Your task to perform on an android device: add a label to a message in the gmail app Image 0: 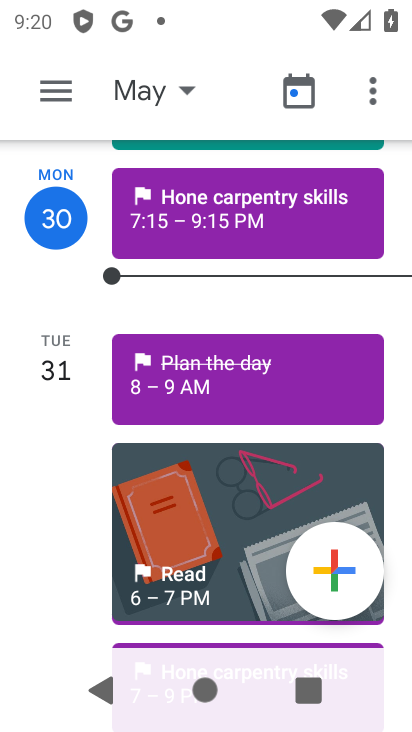
Step 0: press home button
Your task to perform on an android device: add a label to a message in the gmail app Image 1: 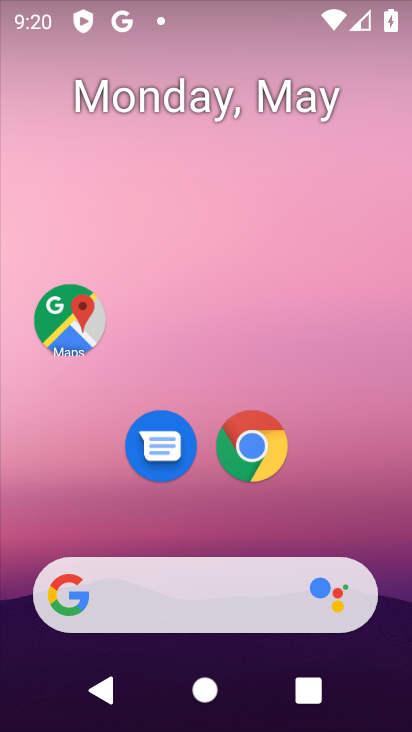
Step 1: drag from (87, 550) to (210, 72)
Your task to perform on an android device: add a label to a message in the gmail app Image 2: 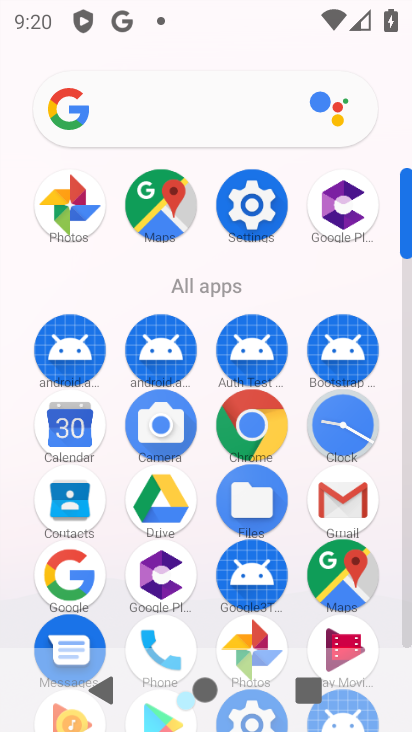
Step 2: drag from (173, 570) to (227, 390)
Your task to perform on an android device: add a label to a message in the gmail app Image 3: 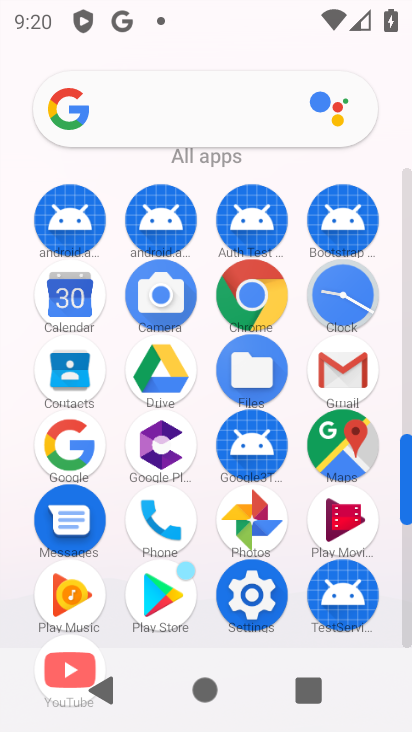
Step 3: click (359, 362)
Your task to perform on an android device: add a label to a message in the gmail app Image 4: 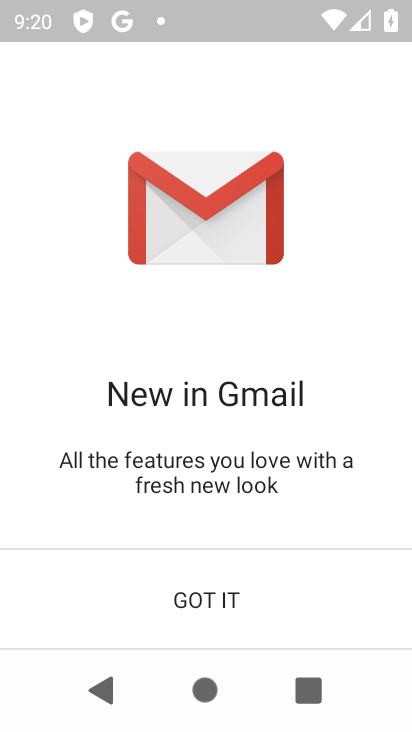
Step 4: click (291, 589)
Your task to perform on an android device: add a label to a message in the gmail app Image 5: 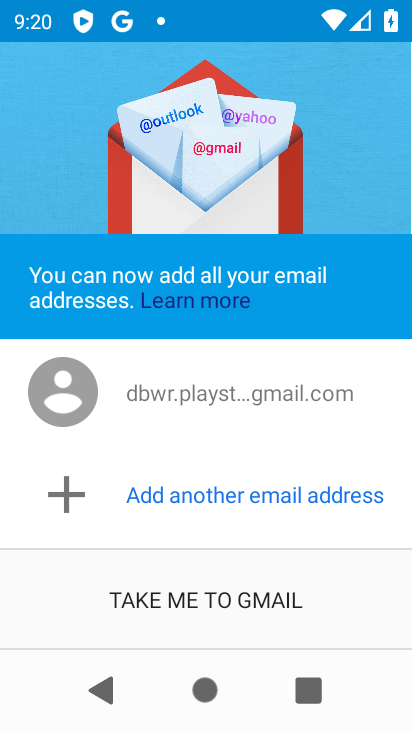
Step 5: click (290, 628)
Your task to perform on an android device: add a label to a message in the gmail app Image 6: 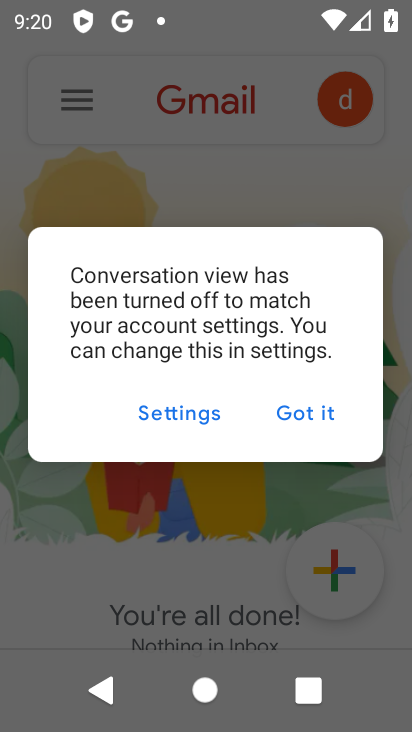
Step 6: click (329, 426)
Your task to perform on an android device: add a label to a message in the gmail app Image 7: 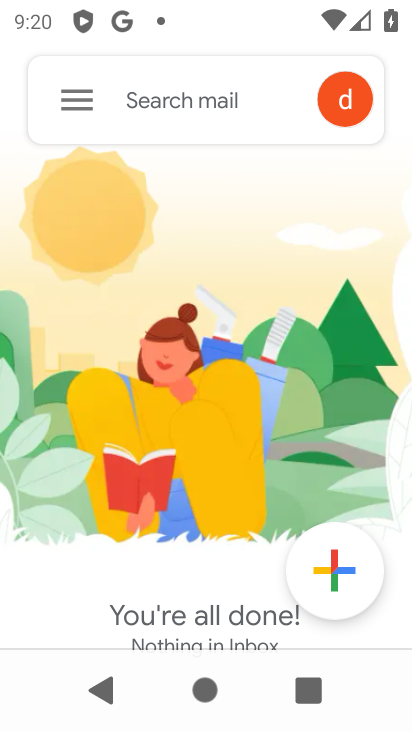
Step 7: click (69, 111)
Your task to perform on an android device: add a label to a message in the gmail app Image 8: 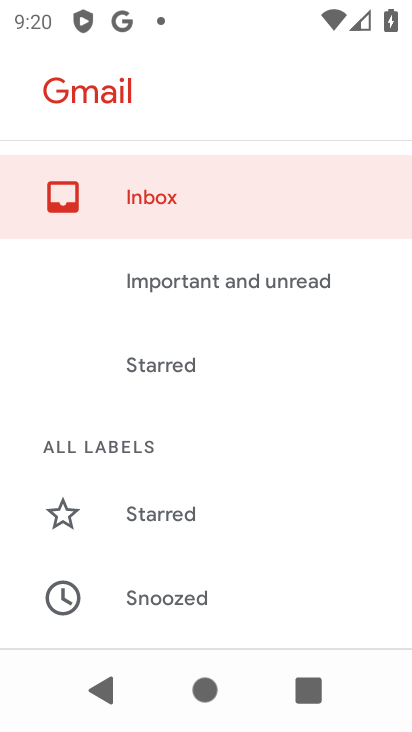
Step 8: drag from (135, 553) to (295, 102)
Your task to perform on an android device: add a label to a message in the gmail app Image 9: 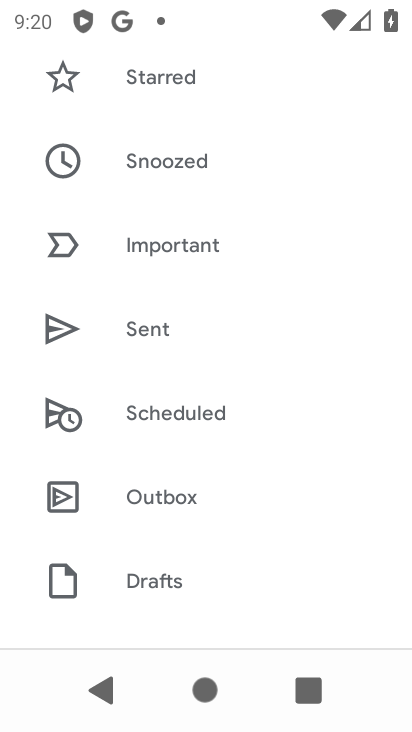
Step 9: drag from (158, 581) to (243, 251)
Your task to perform on an android device: add a label to a message in the gmail app Image 10: 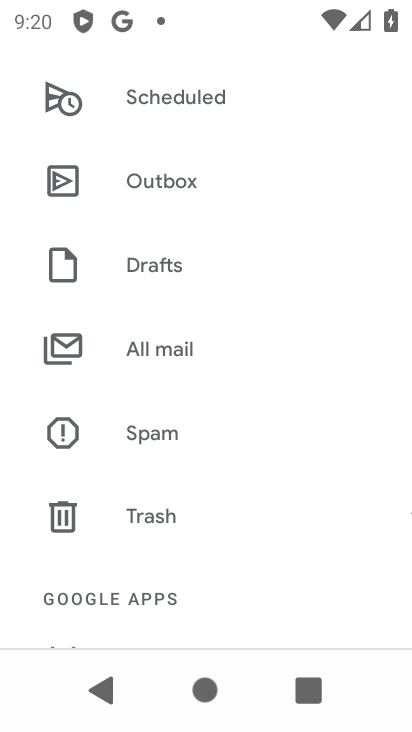
Step 10: click (177, 340)
Your task to perform on an android device: add a label to a message in the gmail app Image 11: 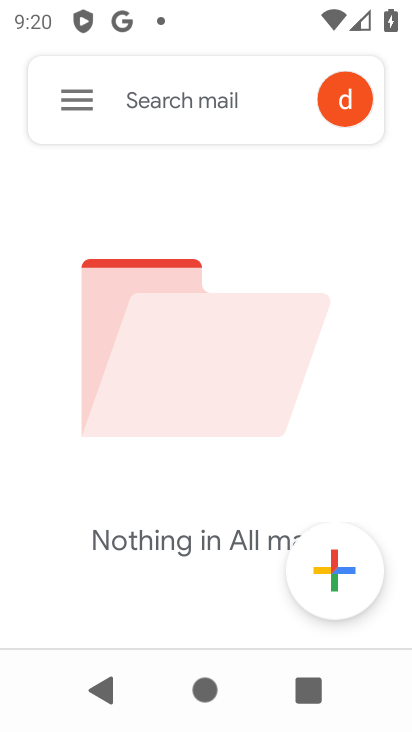
Step 11: task complete